Your task to perform on an android device: create a new album in the google photos Image 0: 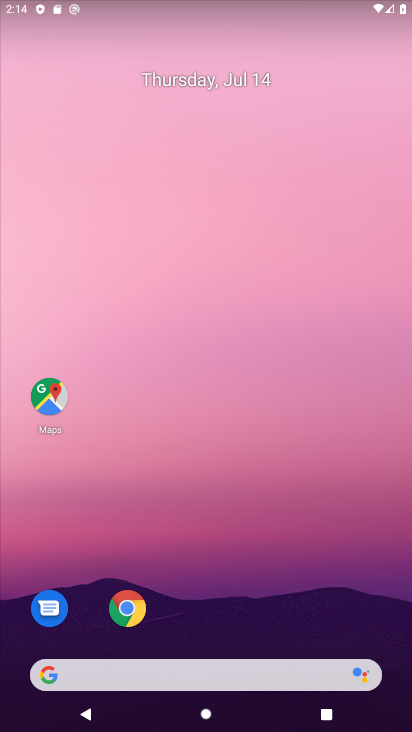
Step 0: drag from (203, 578) to (212, 61)
Your task to perform on an android device: create a new album in the google photos Image 1: 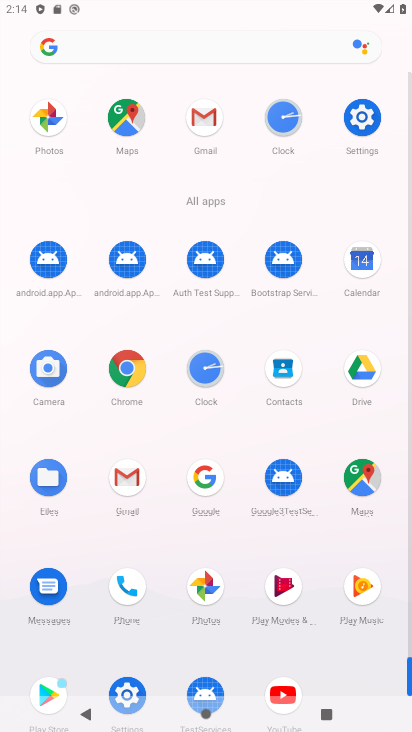
Step 1: click (203, 579)
Your task to perform on an android device: create a new album in the google photos Image 2: 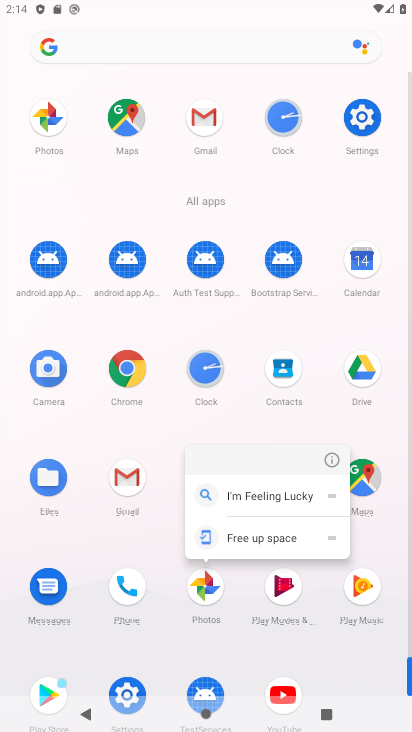
Step 2: click (343, 461)
Your task to perform on an android device: create a new album in the google photos Image 3: 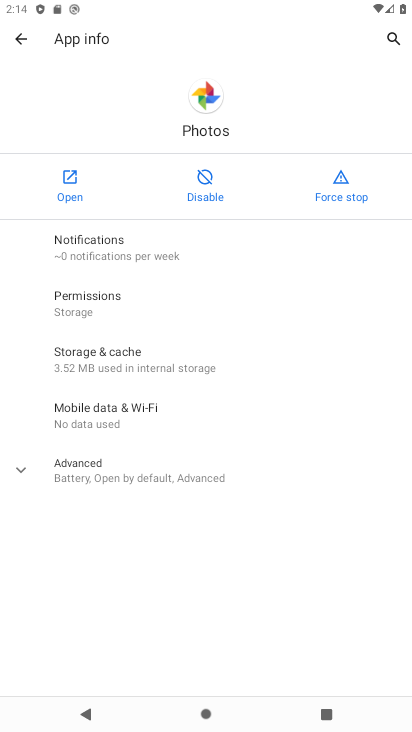
Step 3: drag from (153, 552) to (298, 119)
Your task to perform on an android device: create a new album in the google photos Image 4: 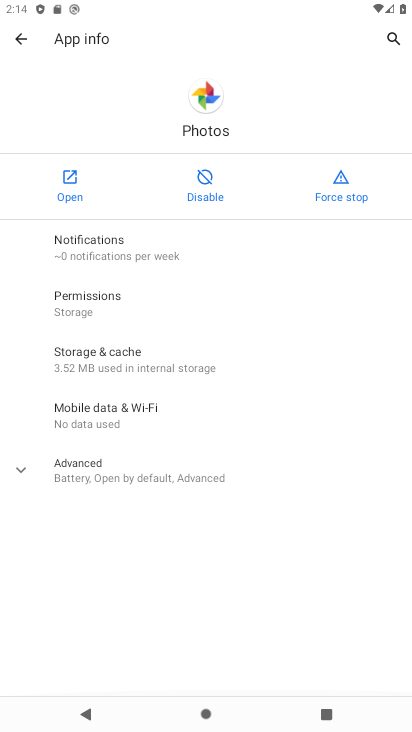
Step 4: click (89, 195)
Your task to perform on an android device: create a new album in the google photos Image 5: 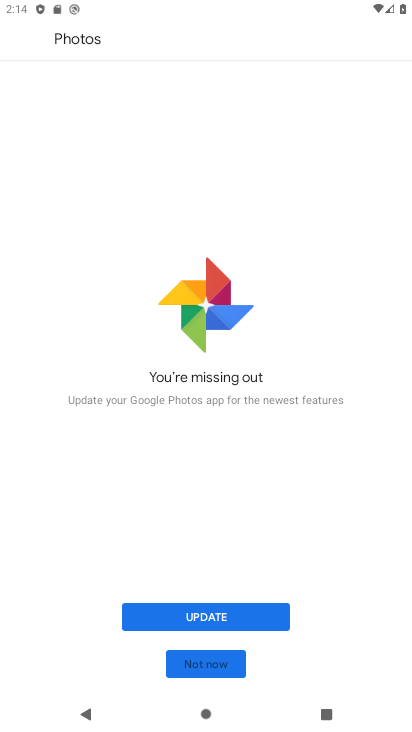
Step 5: click (213, 666)
Your task to perform on an android device: create a new album in the google photos Image 6: 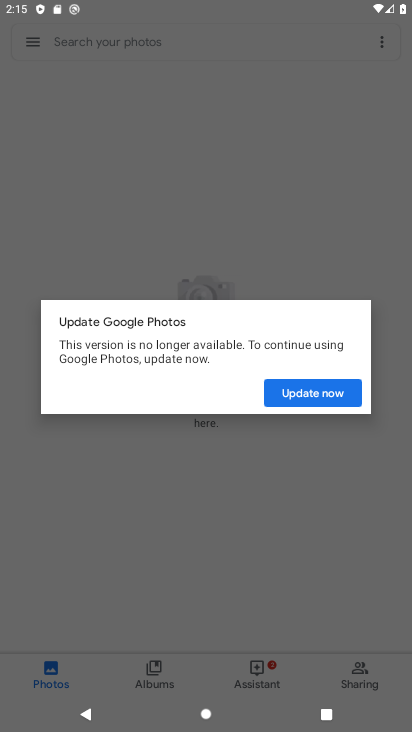
Step 6: drag from (240, 542) to (272, 382)
Your task to perform on an android device: create a new album in the google photos Image 7: 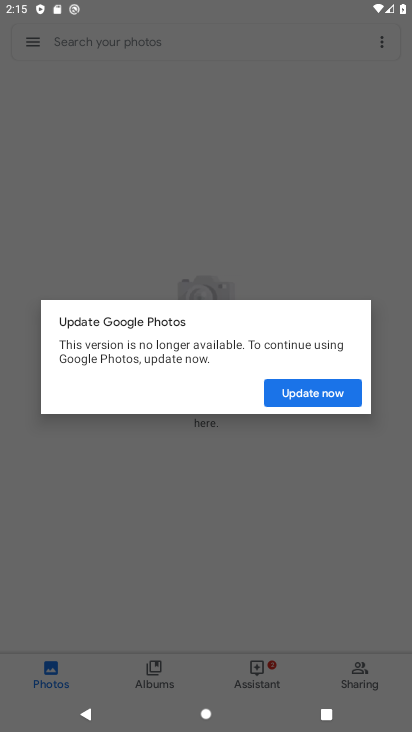
Step 7: drag from (214, 515) to (293, 180)
Your task to perform on an android device: create a new album in the google photos Image 8: 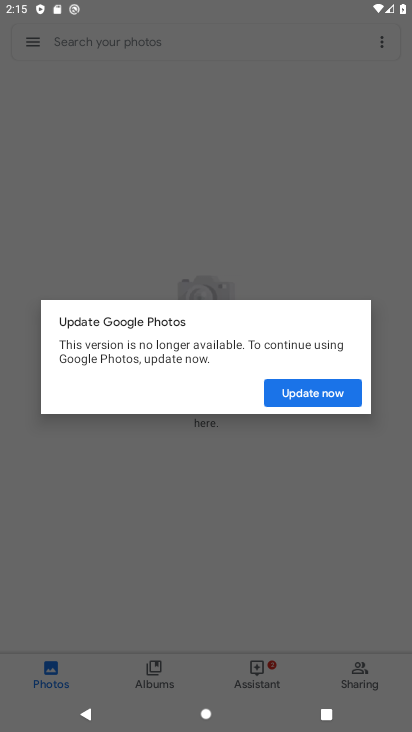
Step 8: drag from (258, 552) to (357, 166)
Your task to perform on an android device: create a new album in the google photos Image 9: 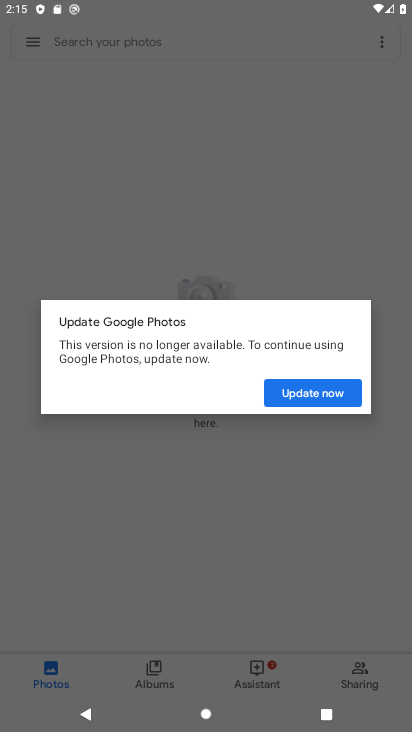
Step 9: drag from (220, 610) to (244, 301)
Your task to perform on an android device: create a new album in the google photos Image 10: 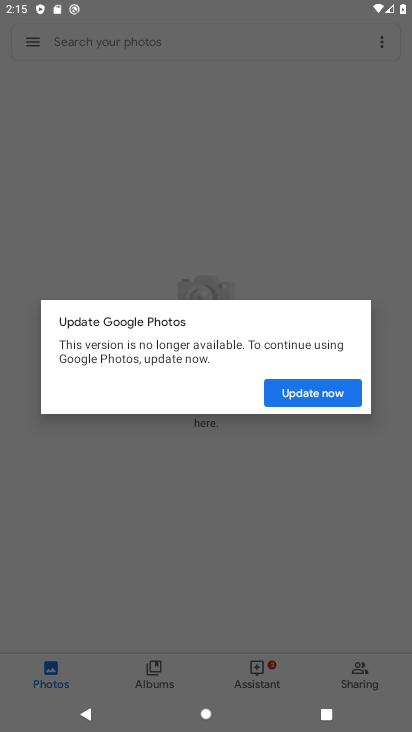
Step 10: drag from (234, 507) to (295, 97)
Your task to perform on an android device: create a new album in the google photos Image 11: 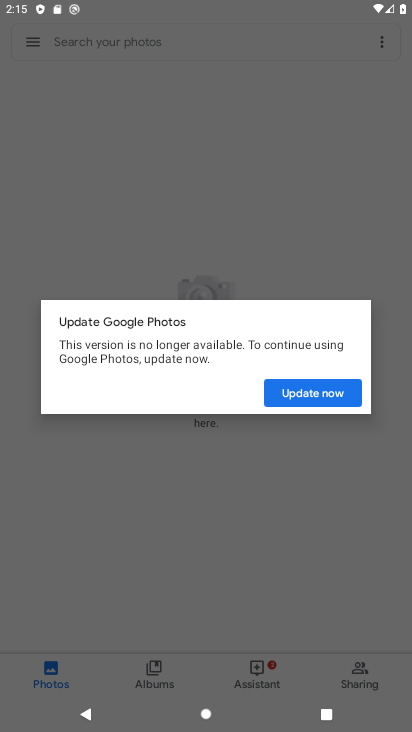
Step 11: drag from (179, 533) to (199, 346)
Your task to perform on an android device: create a new album in the google photos Image 12: 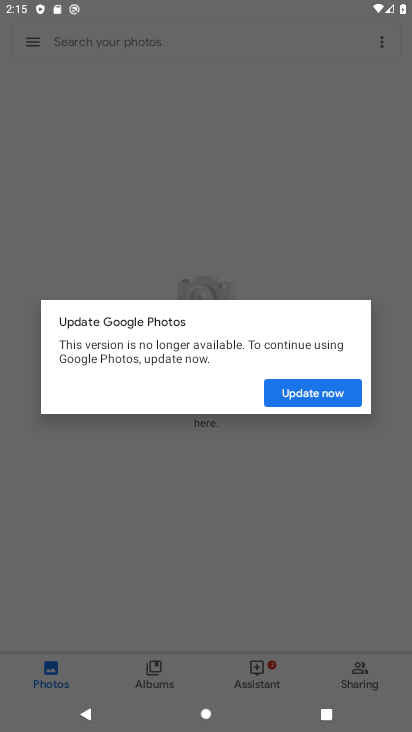
Step 12: drag from (199, 432) to (222, 93)
Your task to perform on an android device: create a new album in the google photos Image 13: 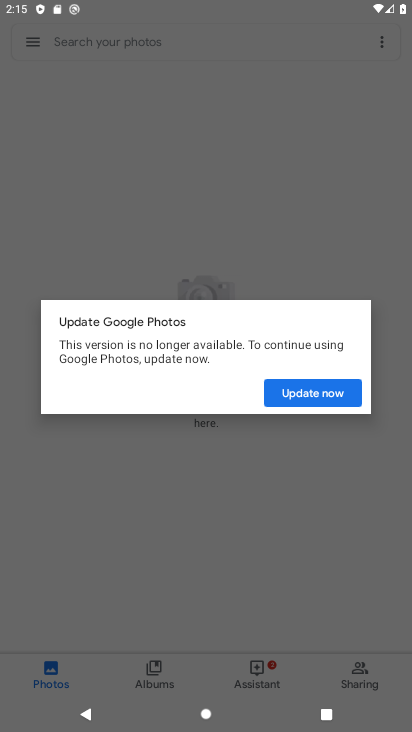
Step 13: drag from (207, 438) to (211, 235)
Your task to perform on an android device: create a new album in the google photos Image 14: 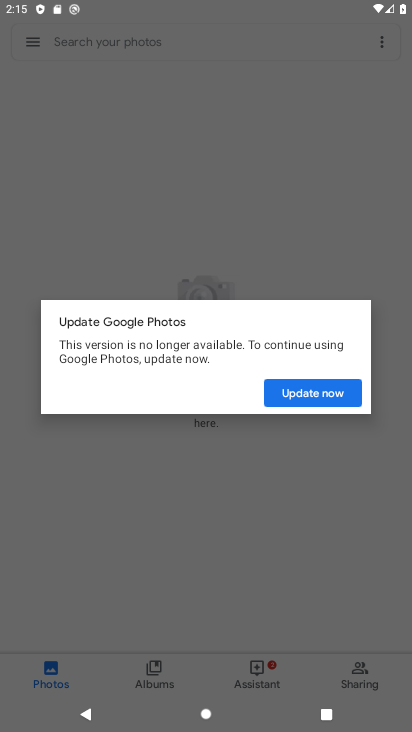
Step 14: drag from (142, 505) to (198, 251)
Your task to perform on an android device: create a new album in the google photos Image 15: 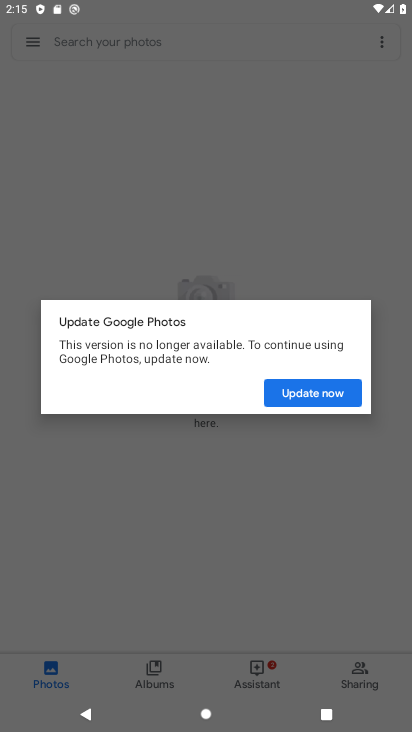
Step 15: drag from (203, 518) to (217, 237)
Your task to perform on an android device: create a new album in the google photos Image 16: 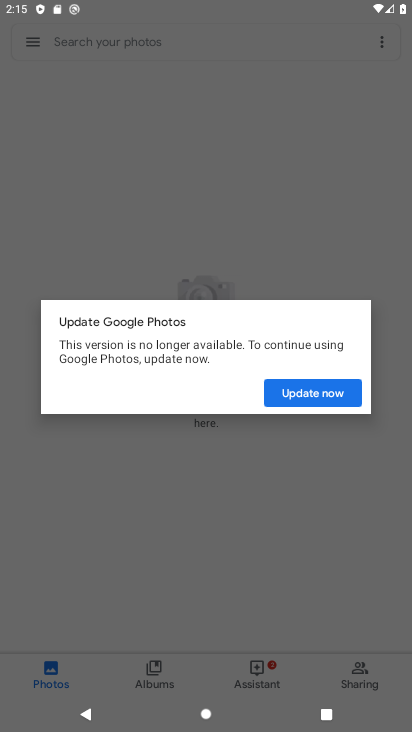
Step 16: drag from (213, 598) to (246, 137)
Your task to perform on an android device: create a new album in the google photos Image 17: 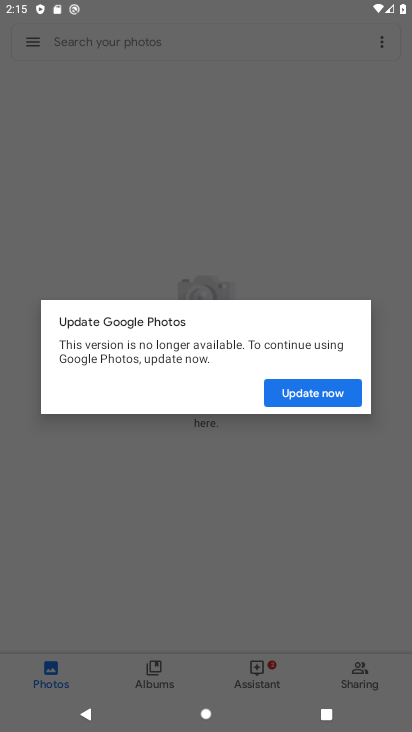
Step 17: press home button
Your task to perform on an android device: create a new album in the google photos Image 18: 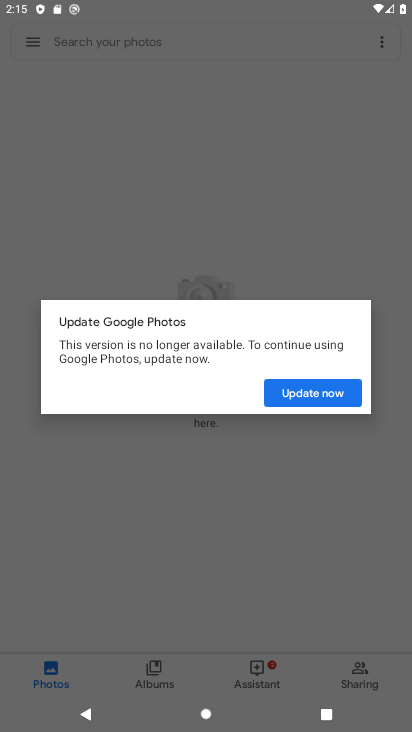
Step 18: drag from (219, 477) to (226, 196)
Your task to perform on an android device: create a new album in the google photos Image 19: 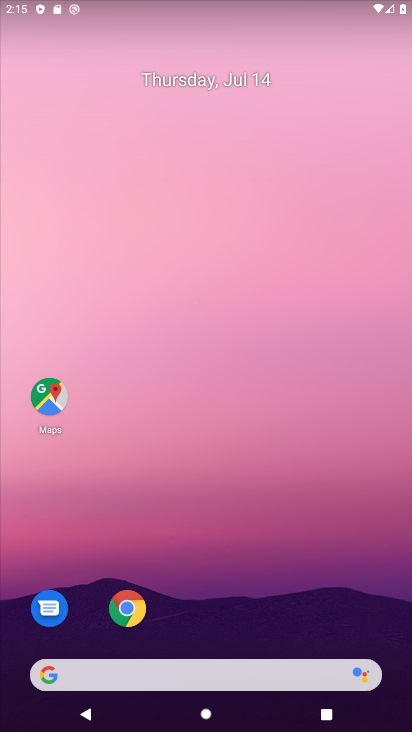
Step 19: drag from (238, 570) to (266, 424)
Your task to perform on an android device: create a new album in the google photos Image 20: 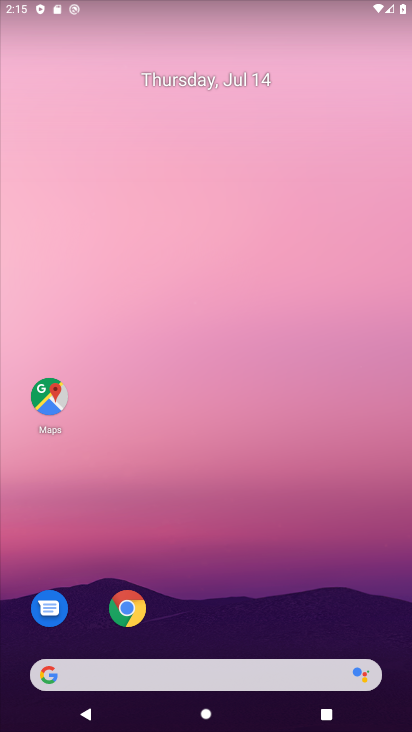
Step 20: drag from (189, 639) to (224, 96)
Your task to perform on an android device: create a new album in the google photos Image 21: 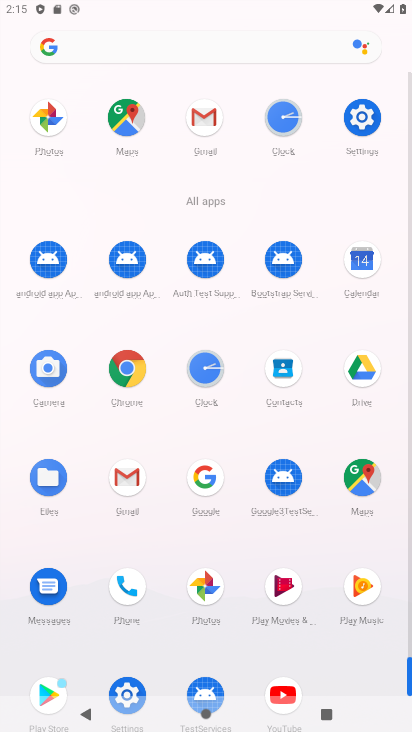
Step 21: drag from (157, 572) to (152, 139)
Your task to perform on an android device: create a new album in the google photos Image 22: 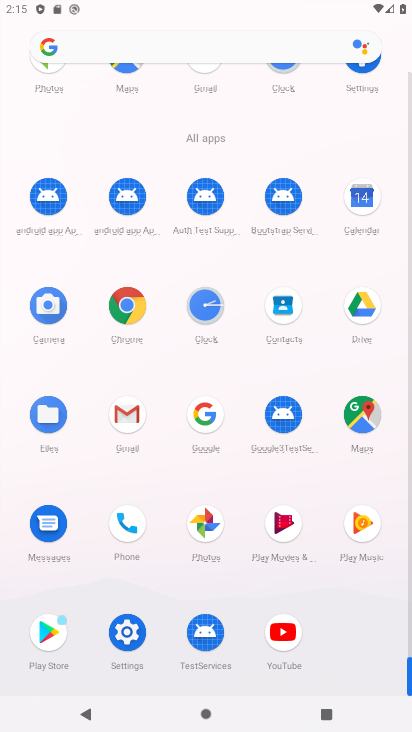
Step 22: drag from (169, 569) to (126, 244)
Your task to perform on an android device: create a new album in the google photos Image 23: 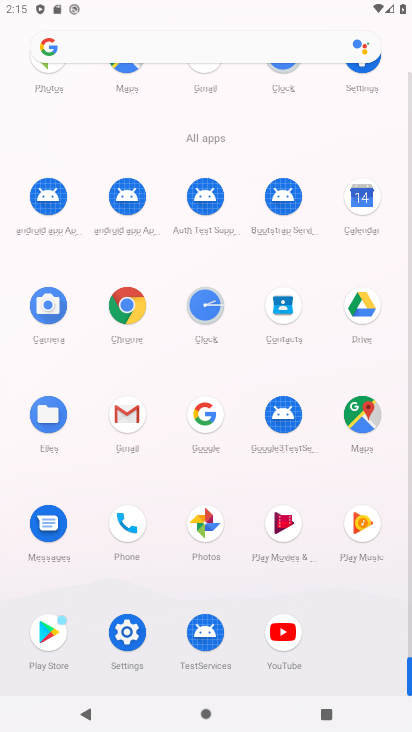
Step 23: drag from (154, 554) to (159, 234)
Your task to perform on an android device: create a new album in the google photos Image 24: 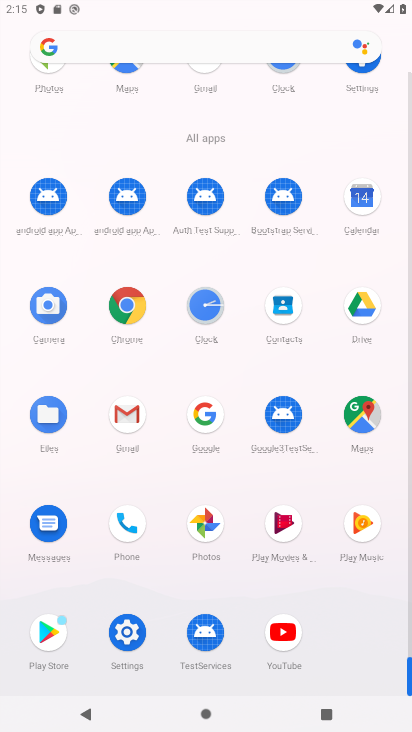
Step 24: click (205, 518)
Your task to perform on an android device: create a new album in the google photos Image 25: 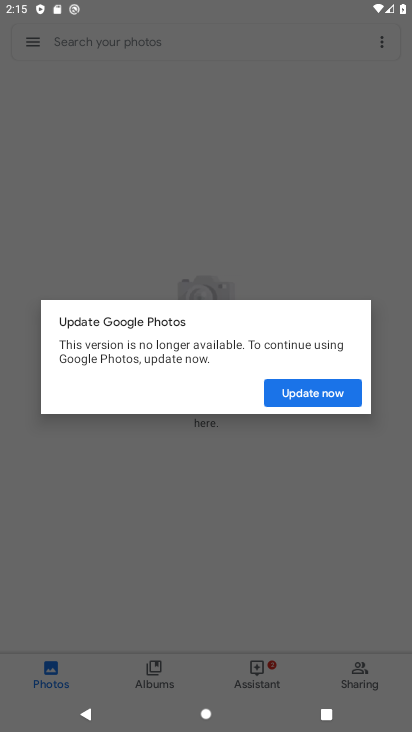
Step 25: task complete